Your task to perform on an android device: Go to location settings Image 0: 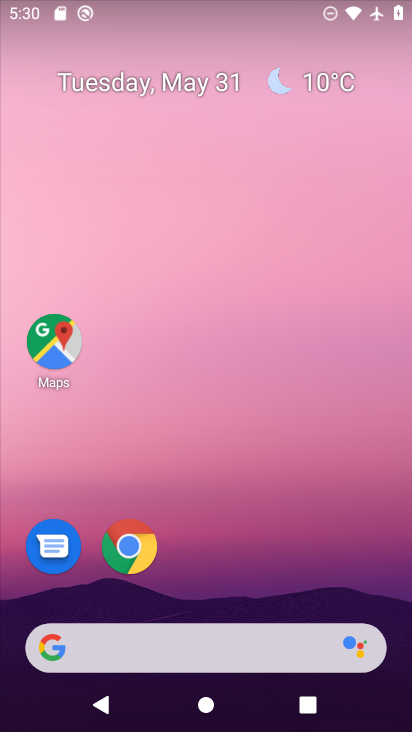
Step 0: drag from (272, 492) to (143, 85)
Your task to perform on an android device: Go to location settings Image 1: 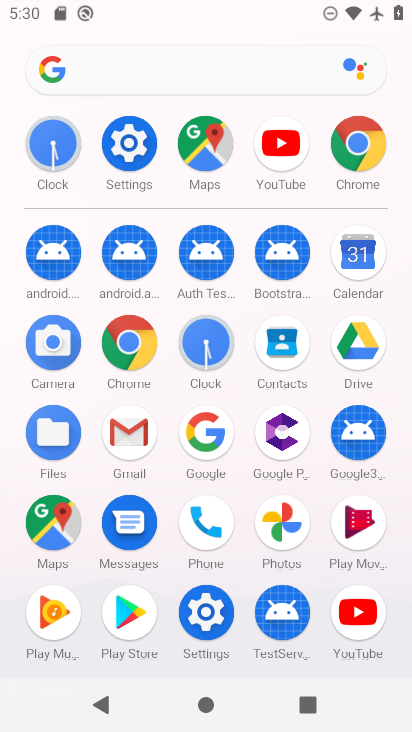
Step 1: click (216, 609)
Your task to perform on an android device: Go to location settings Image 2: 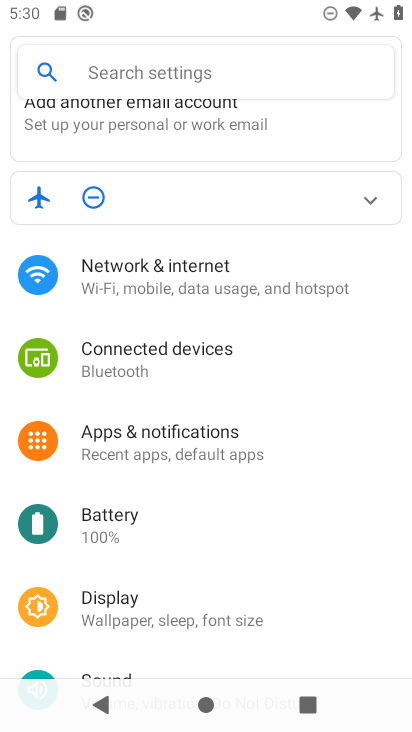
Step 2: drag from (221, 610) to (218, 55)
Your task to perform on an android device: Go to location settings Image 3: 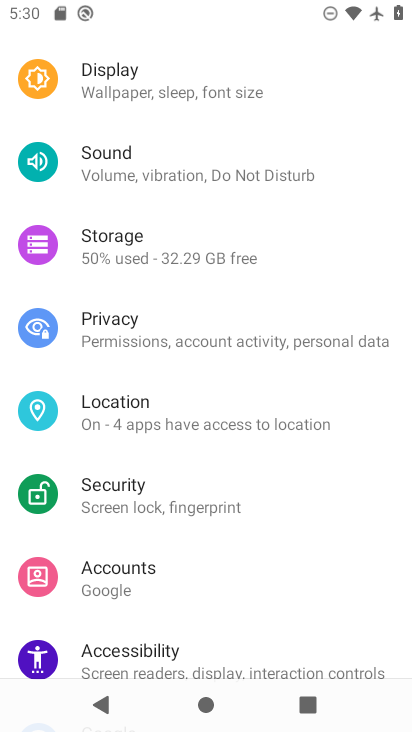
Step 3: click (148, 410)
Your task to perform on an android device: Go to location settings Image 4: 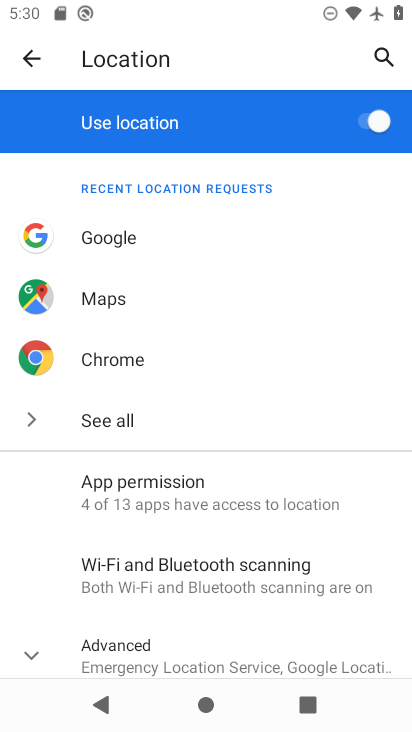
Step 4: task complete